Your task to perform on an android device: Go to notification settings Image 0: 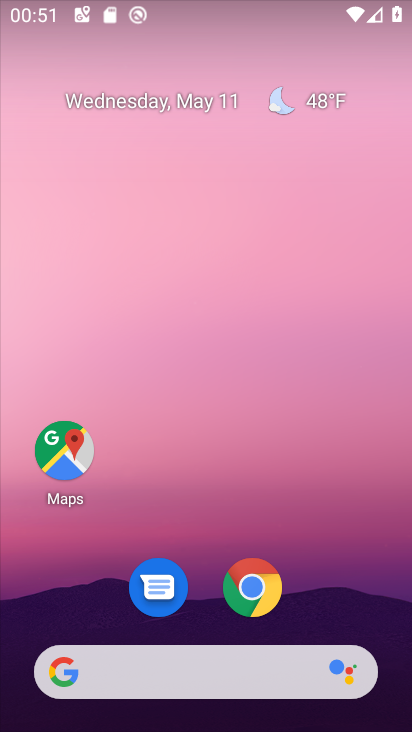
Step 0: drag from (346, 621) to (231, 213)
Your task to perform on an android device: Go to notification settings Image 1: 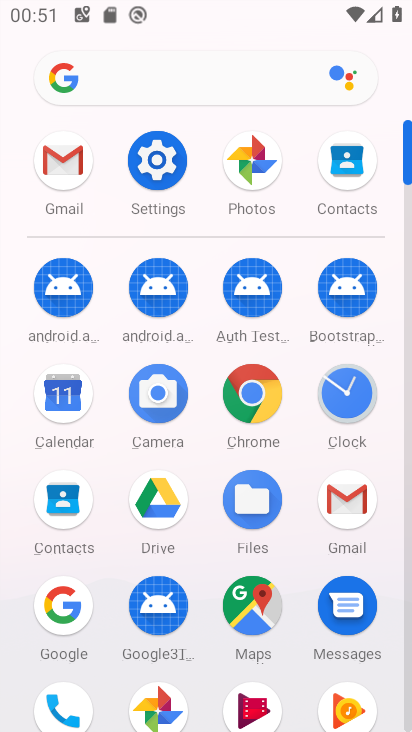
Step 1: click (167, 164)
Your task to perform on an android device: Go to notification settings Image 2: 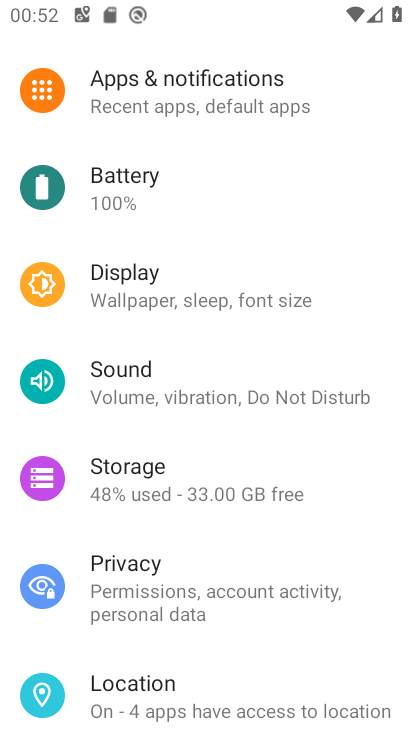
Step 2: click (113, 120)
Your task to perform on an android device: Go to notification settings Image 3: 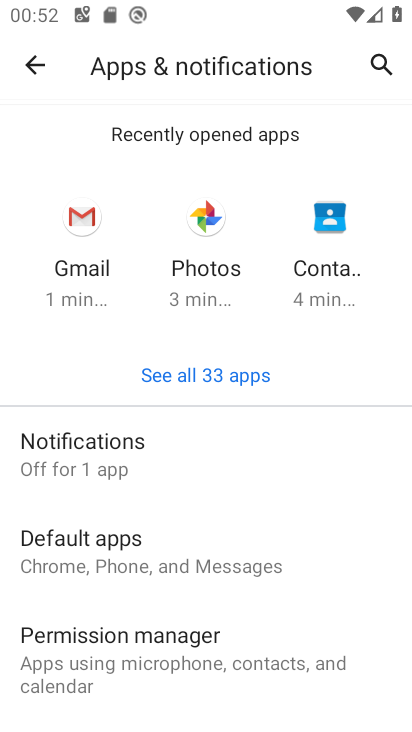
Step 3: click (145, 448)
Your task to perform on an android device: Go to notification settings Image 4: 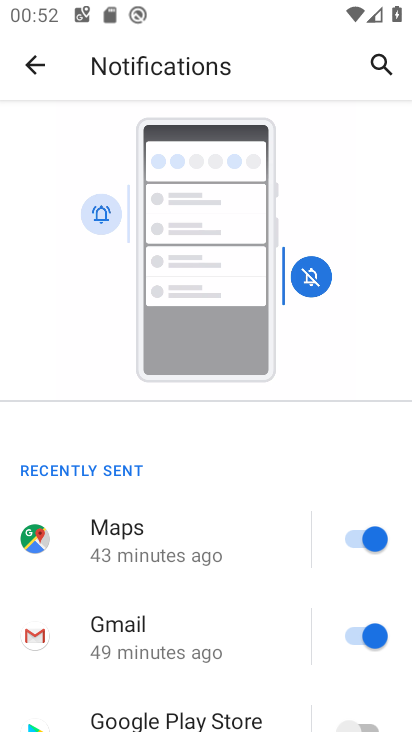
Step 4: task complete